Your task to perform on an android device: turn pop-ups on in chrome Image 0: 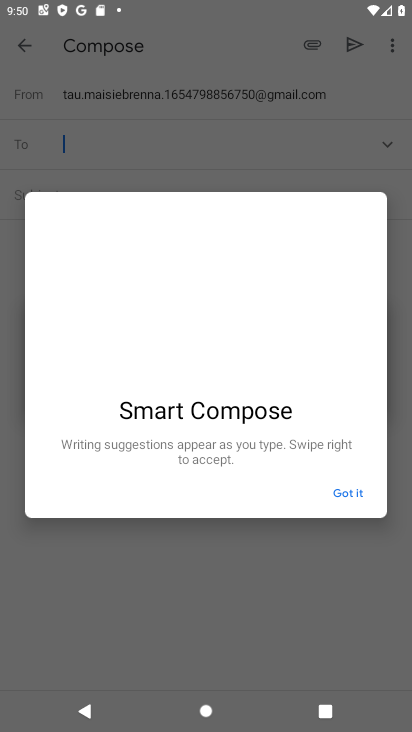
Step 0: press home button
Your task to perform on an android device: turn pop-ups on in chrome Image 1: 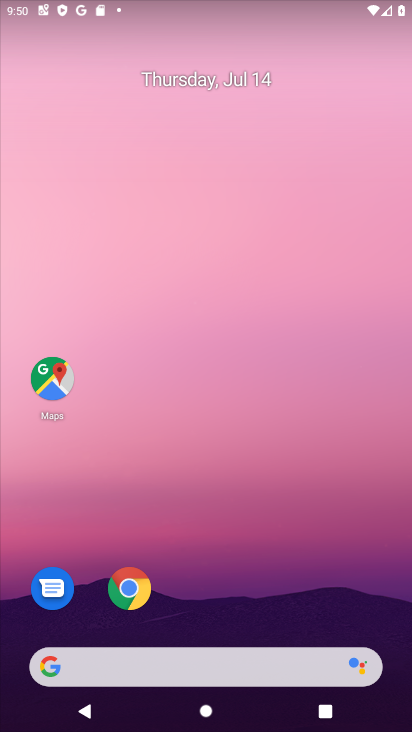
Step 1: click (130, 592)
Your task to perform on an android device: turn pop-ups on in chrome Image 2: 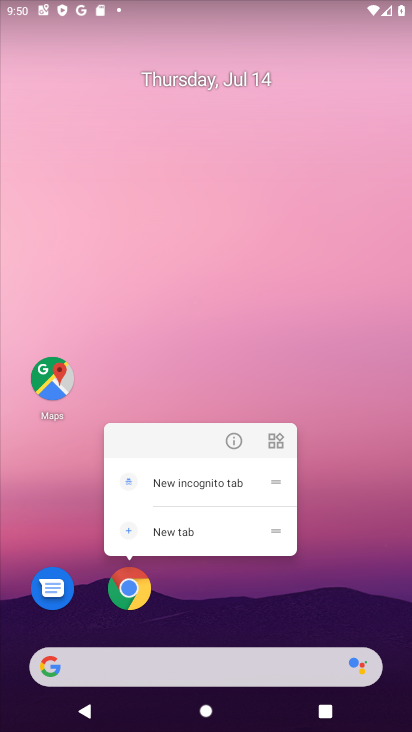
Step 2: click (138, 602)
Your task to perform on an android device: turn pop-ups on in chrome Image 3: 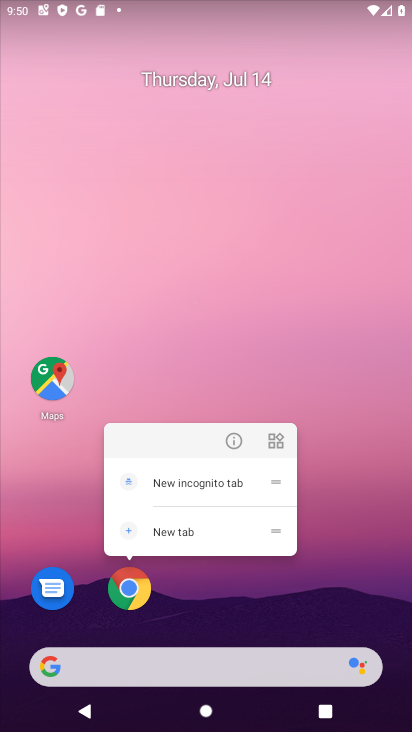
Step 3: click (132, 585)
Your task to perform on an android device: turn pop-ups on in chrome Image 4: 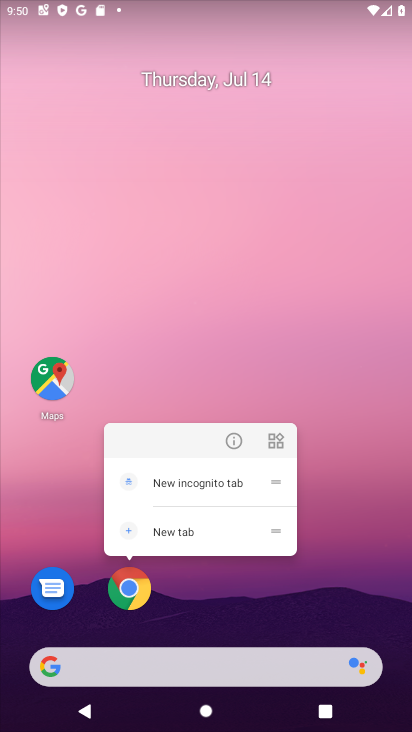
Step 4: click (128, 589)
Your task to perform on an android device: turn pop-ups on in chrome Image 5: 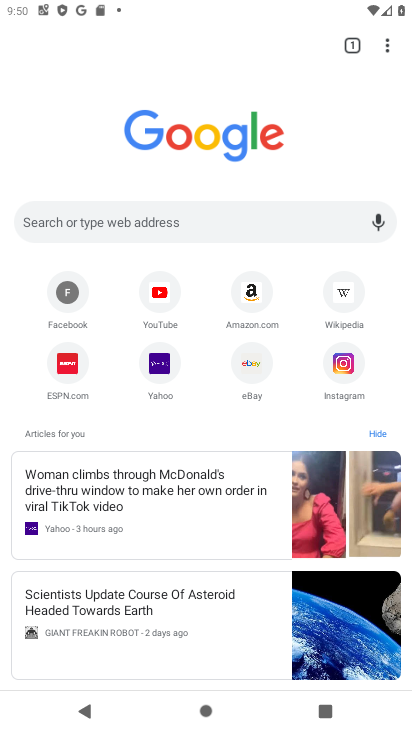
Step 5: drag from (384, 46) to (250, 371)
Your task to perform on an android device: turn pop-ups on in chrome Image 6: 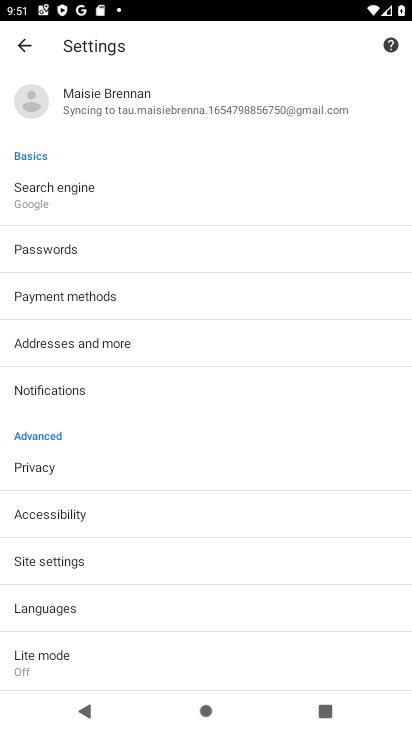
Step 6: click (85, 563)
Your task to perform on an android device: turn pop-ups on in chrome Image 7: 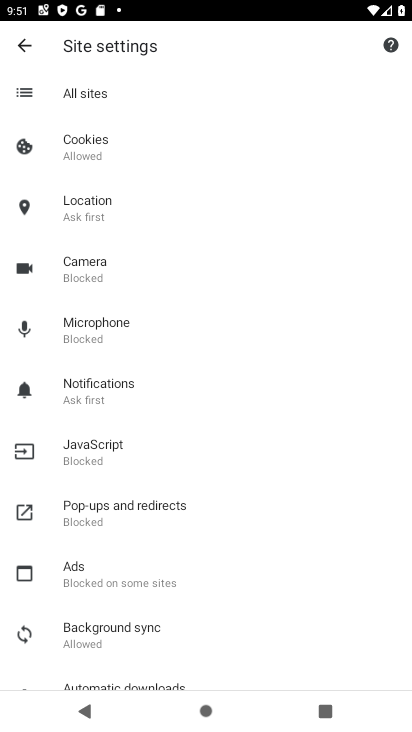
Step 7: click (101, 515)
Your task to perform on an android device: turn pop-ups on in chrome Image 8: 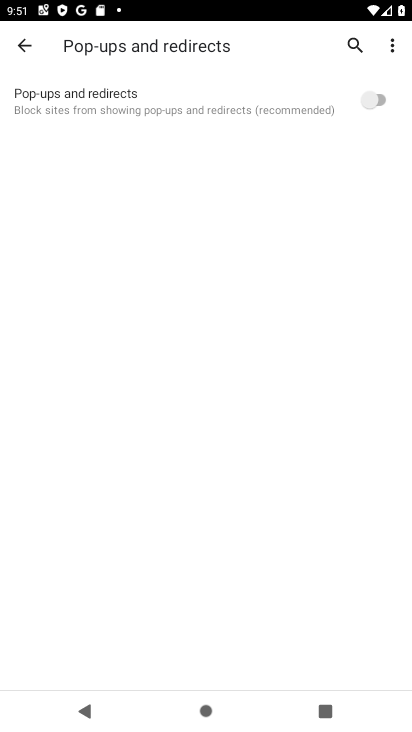
Step 8: click (375, 97)
Your task to perform on an android device: turn pop-ups on in chrome Image 9: 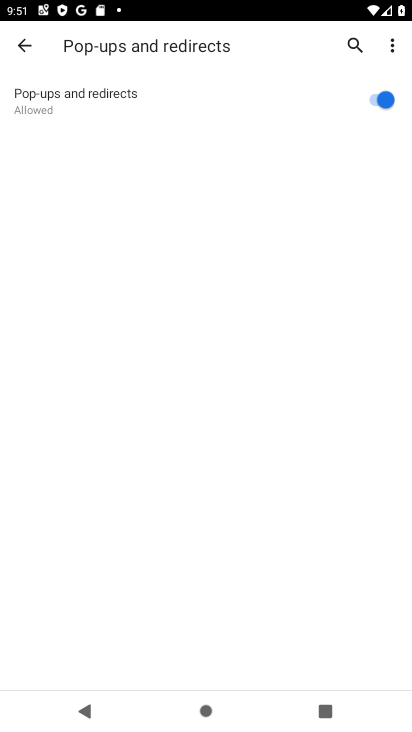
Step 9: task complete